Your task to perform on an android device: toggle improve location accuracy Image 0: 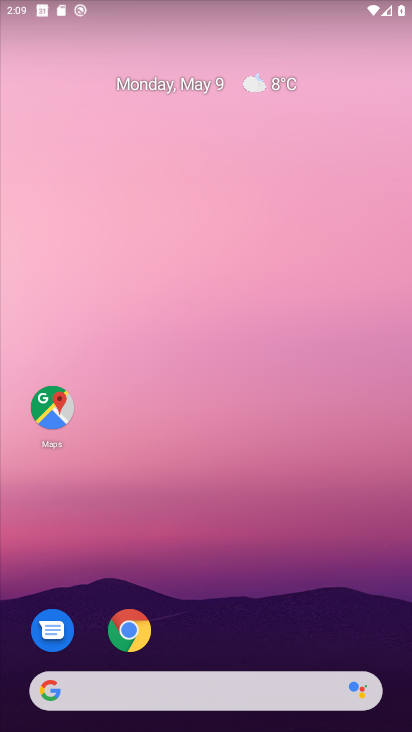
Step 0: drag from (222, 636) to (264, 66)
Your task to perform on an android device: toggle improve location accuracy Image 1: 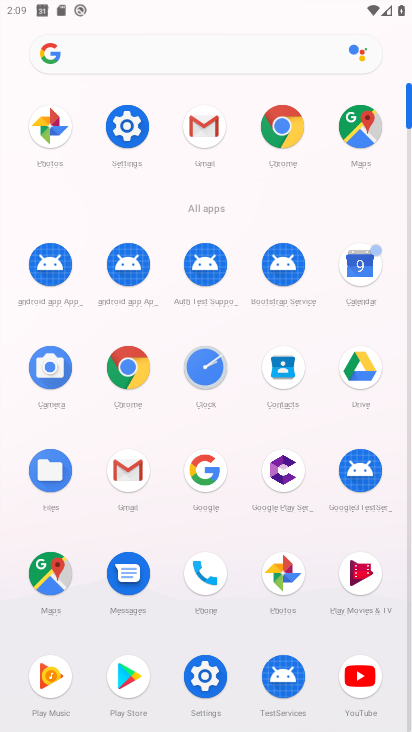
Step 1: click (209, 696)
Your task to perform on an android device: toggle improve location accuracy Image 2: 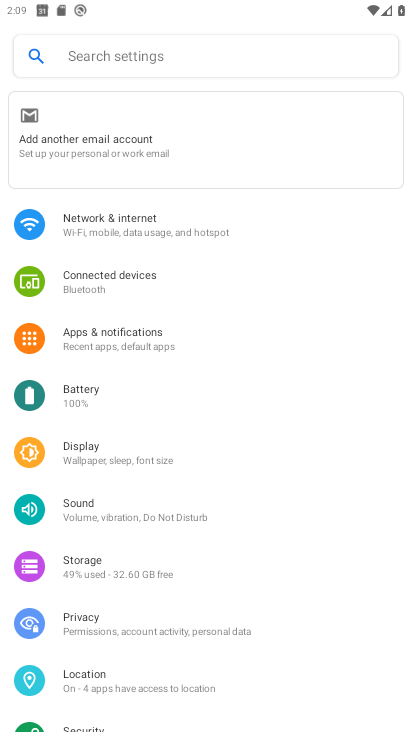
Step 2: click (166, 676)
Your task to perform on an android device: toggle improve location accuracy Image 3: 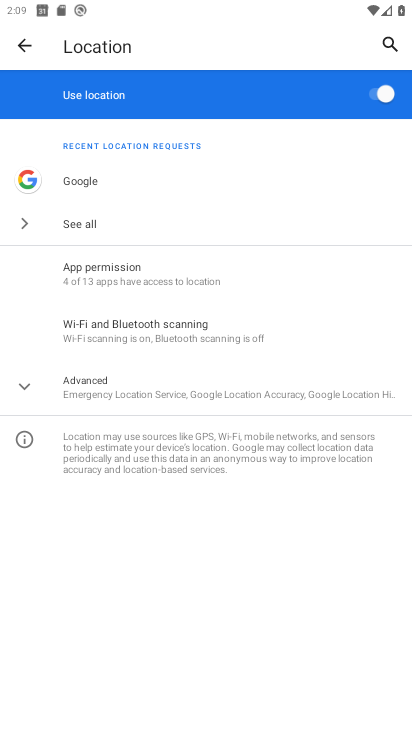
Step 3: click (159, 398)
Your task to perform on an android device: toggle improve location accuracy Image 4: 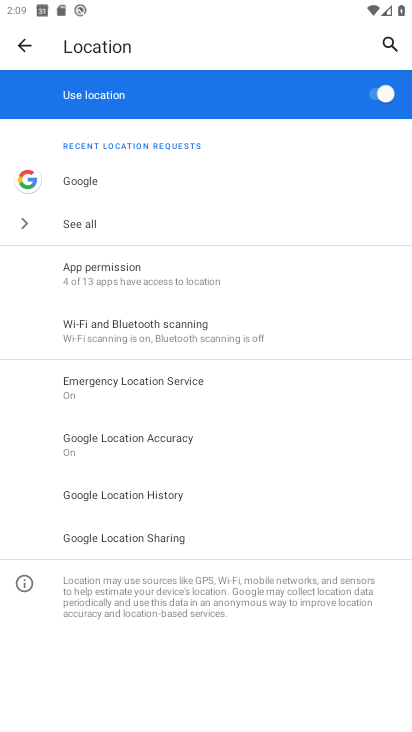
Step 4: click (162, 451)
Your task to perform on an android device: toggle improve location accuracy Image 5: 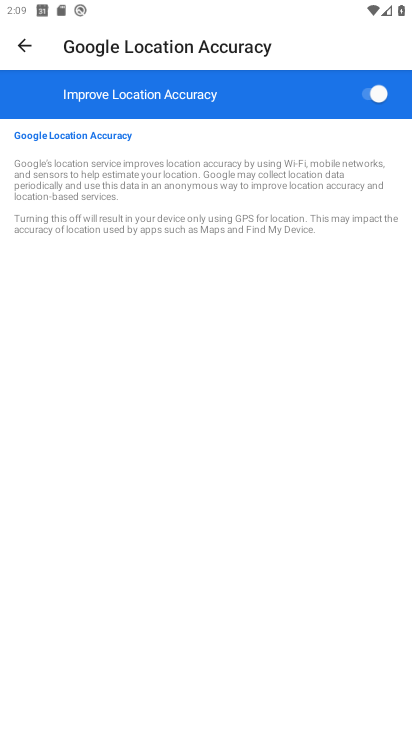
Step 5: click (367, 92)
Your task to perform on an android device: toggle improve location accuracy Image 6: 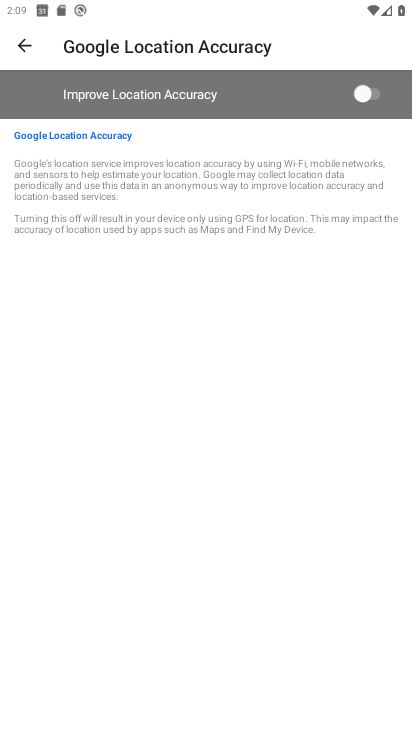
Step 6: task complete